Your task to perform on an android device: Show me popular games on the Play Store Image 0: 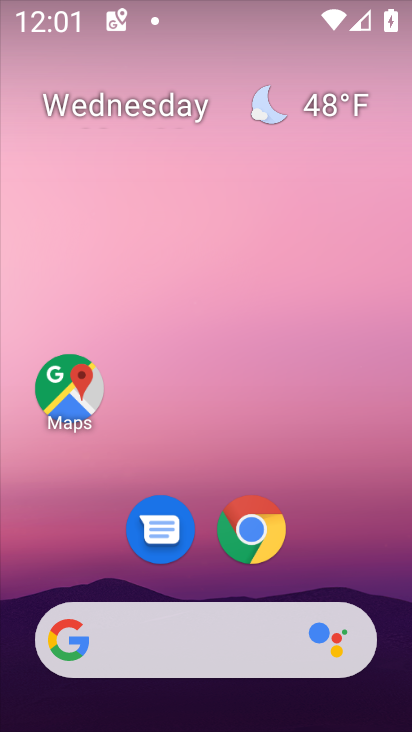
Step 0: drag from (290, 599) to (308, 128)
Your task to perform on an android device: Show me popular games on the Play Store Image 1: 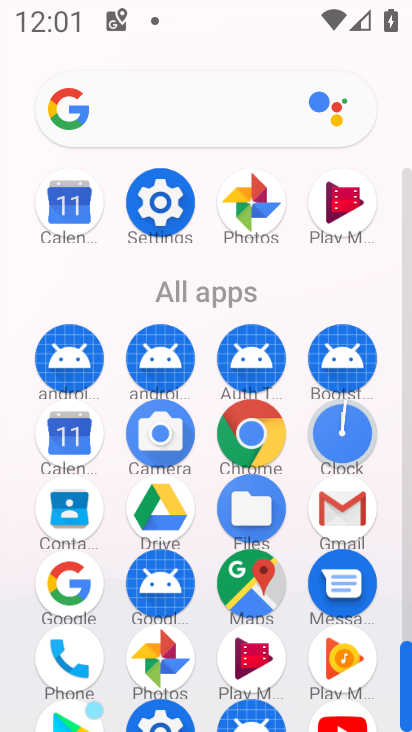
Step 1: drag from (229, 689) to (272, 350)
Your task to perform on an android device: Show me popular games on the Play Store Image 2: 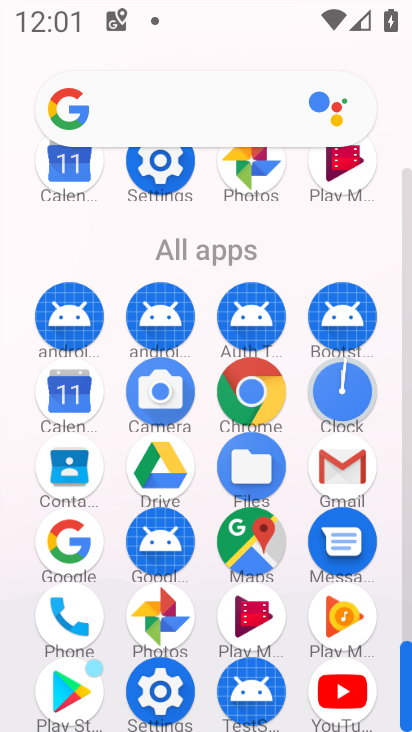
Step 2: click (75, 690)
Your task to perform on an android device: Show me popular games on the Play Store Image 3: 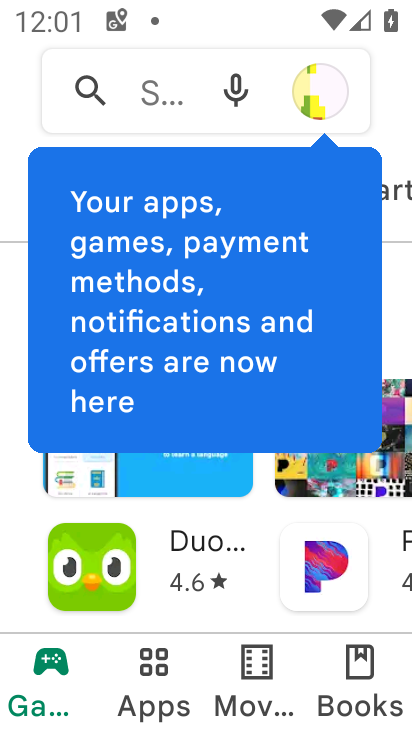
Step 3: click (36, 707)
Your task to perform on an android device: Show me popular games on the Play Store Image 4: 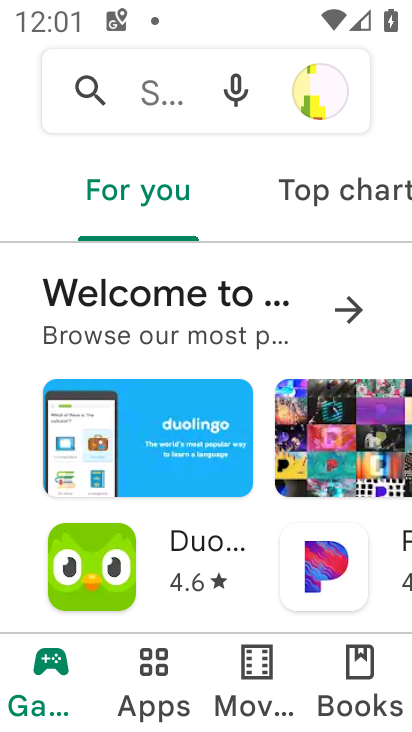
Step 4: drag from (191, 490) to (222, 179)
Your task to perform on an android device: Show me popular games on the Play Store Image 5: 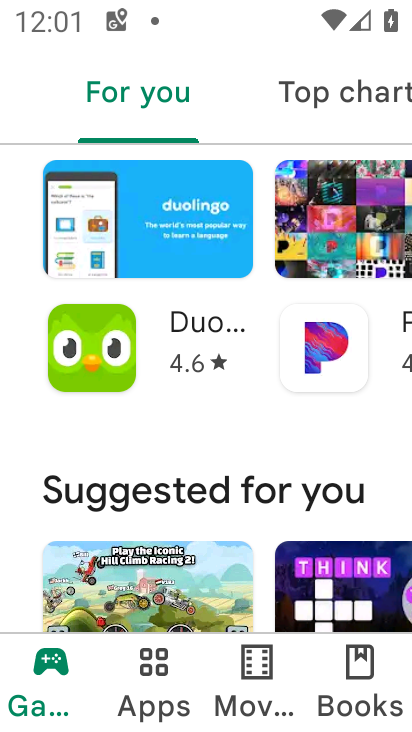
Step 5: drag from (190, 550) to (206, 197)
Your task to perform on an android device: Show me popular games on the Play Store Image 6: 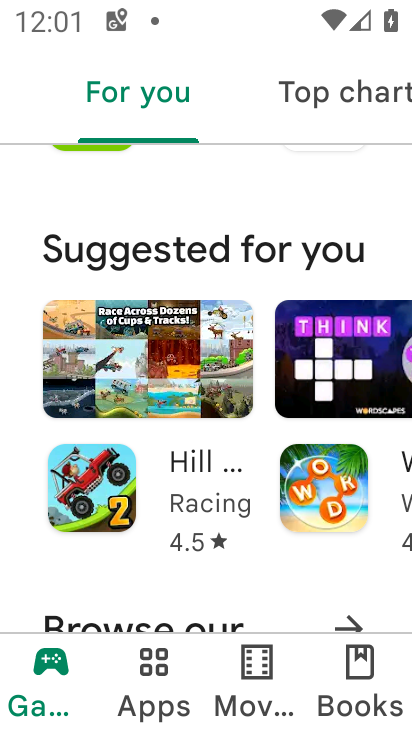
Step 6: drag from (212, 501) to (252, 156)
Your task to perform on an android device: Show me popular games on the Play Store Image 7: 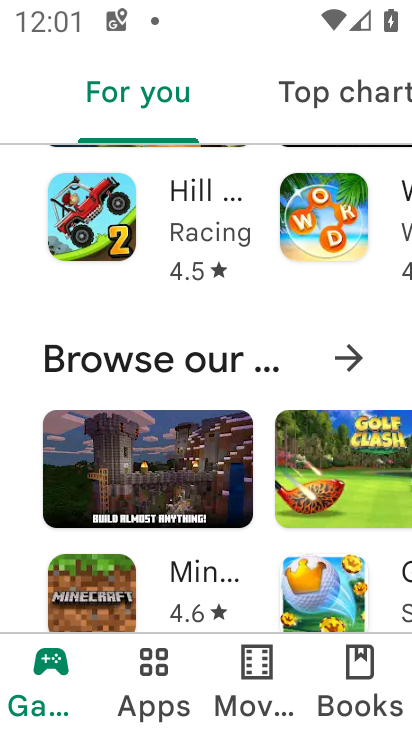
Step 7: click (248, 367)
Your task to perform on an android device: Show me popular games on the Play Store Image 8: 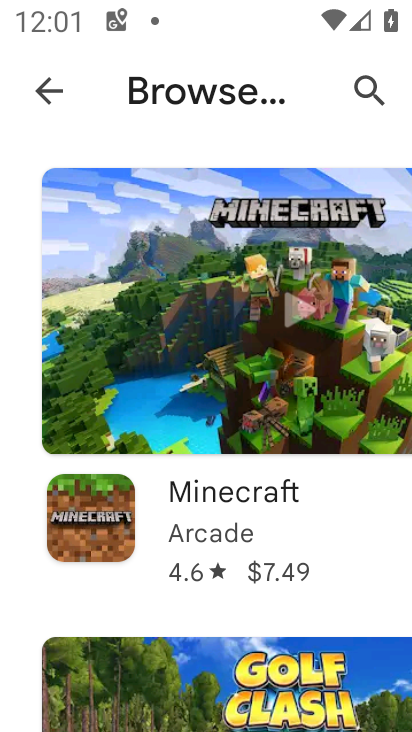
Step 8: task complete